Your task to perform on an android device: set an alarm Image 0: 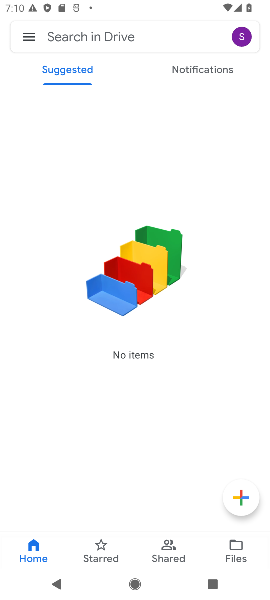
Step 0: press home button
Your task to perform on an android device: set an alarm Image 1: 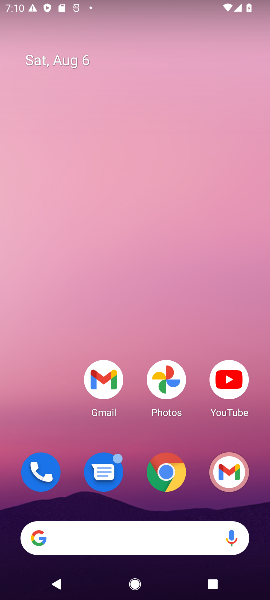
Step 1: drag from (188, 499) to (181, 209)
Your task to perform on an android device: set an alarm Image 2: 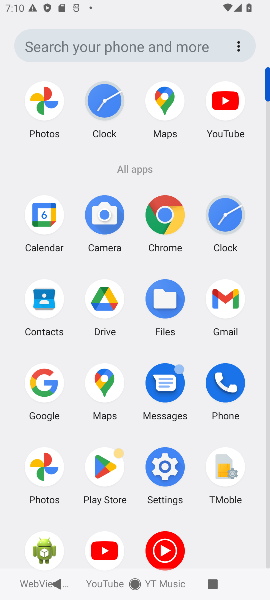
Step 2: click (227, 211)
Your task to perform on an android device: set an alarm Image 3: 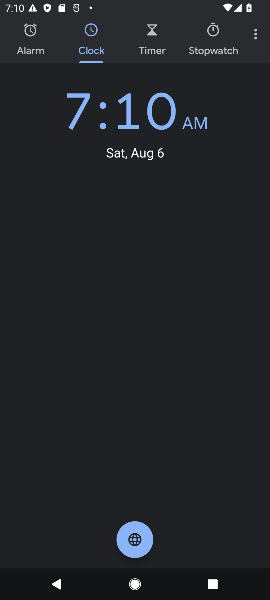
Step 3: click (28, 36)
Your task to perform on an android device: set an alarm Image 4: 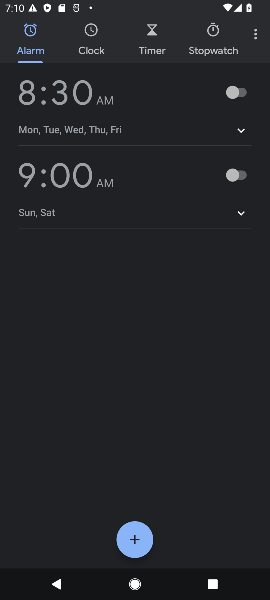
Step 4: click (34, 99)
Your task to perform on an android device: set an alarm Image 5: 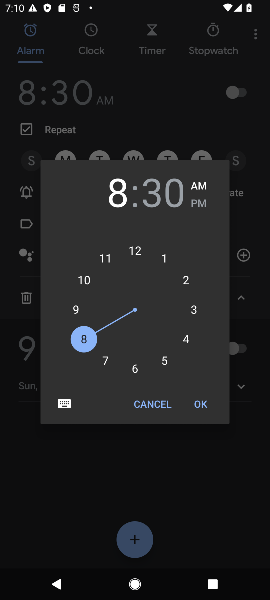
Step 5: click (137, 372)
Your task to perform on an android device: set an alarm Image 6: 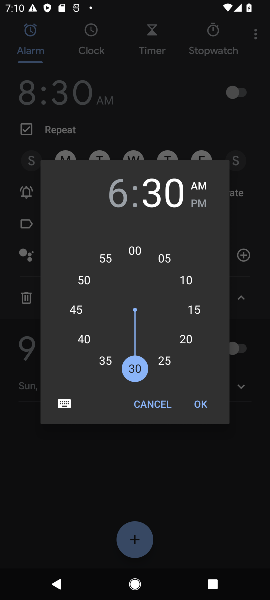
Step 6: click (136, 254)
Your task to perform on an android device: set an alarm Image 7: 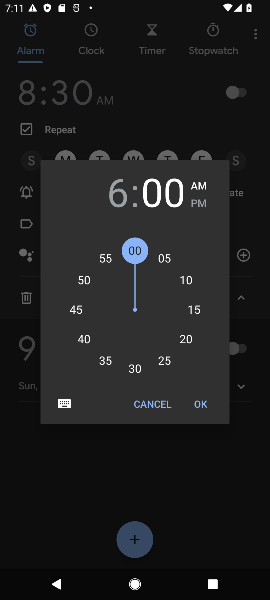
Step 7: click (201, 401)
Your task to perform on an android device: set an alarm Image 8: 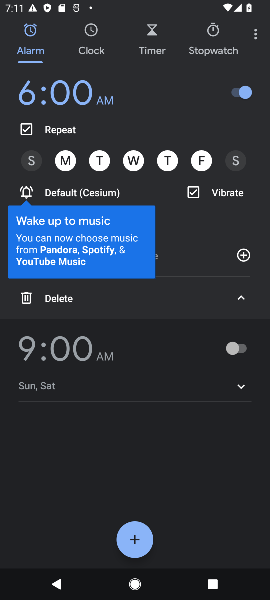
Step 8: click (235, 161)
Your task to perform on an android device: set an alarm Image 9: 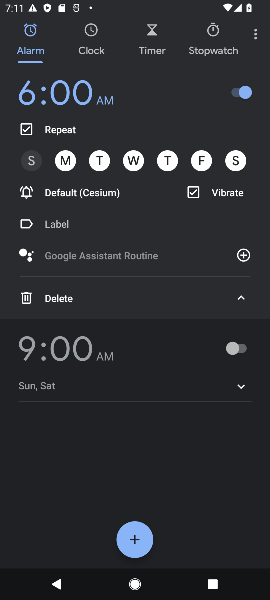
Step 9: click (239, 295)
Your task to perform on an android device: set an alarm Image 10: 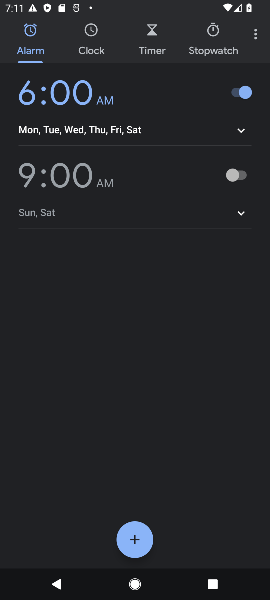
Step 10: task complete